Your task to perform on an android device: Show me recent news Image 0: 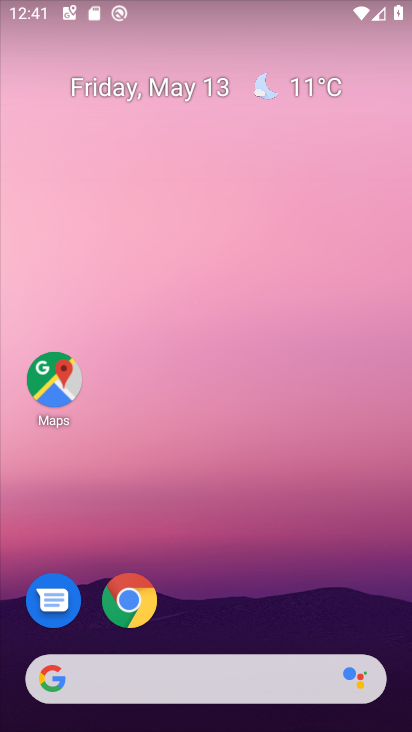
Step 0: click (173, 674)
Your task to perform on an android device: Show me recent news Image 1: 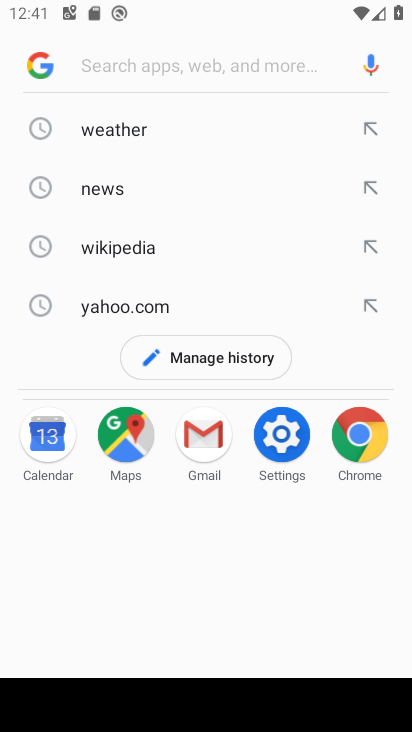
Step 1: type "recent"
Your task to perform on an android device: Show me recent news Image 2: 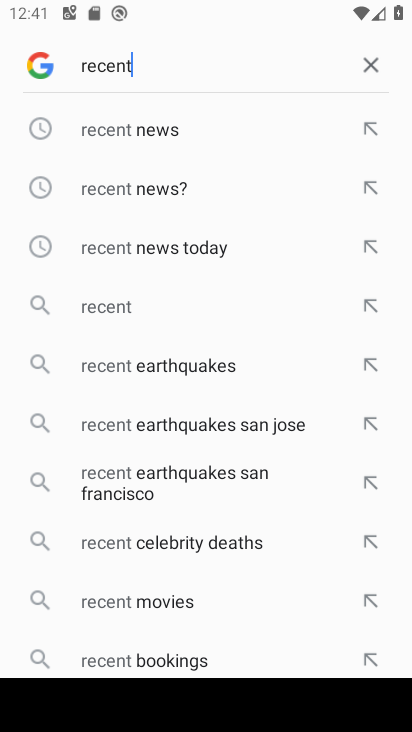
Step 2: click (153, 135)
Your task to perform on an android device: Show me recent news Image 3: 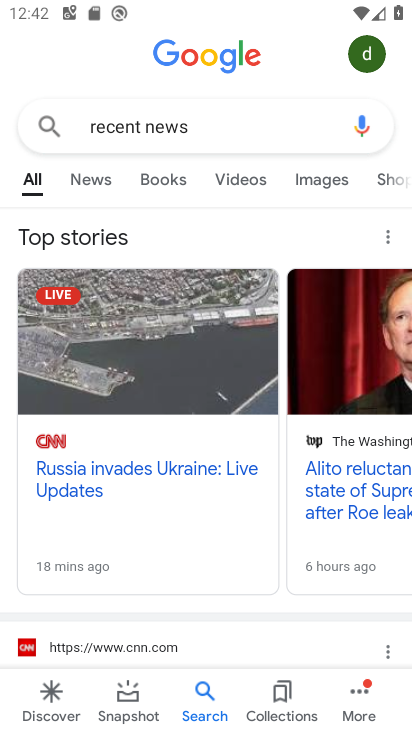
Step 3: task complete